Your task to perform on an android device: Go to Google maps Image 0: 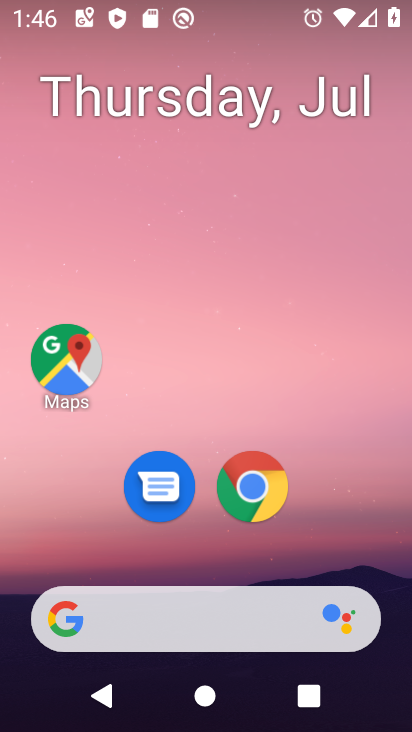
Step 0: click (58, 364)
Your task to perform on an android device: Go to Google maps Image 1: 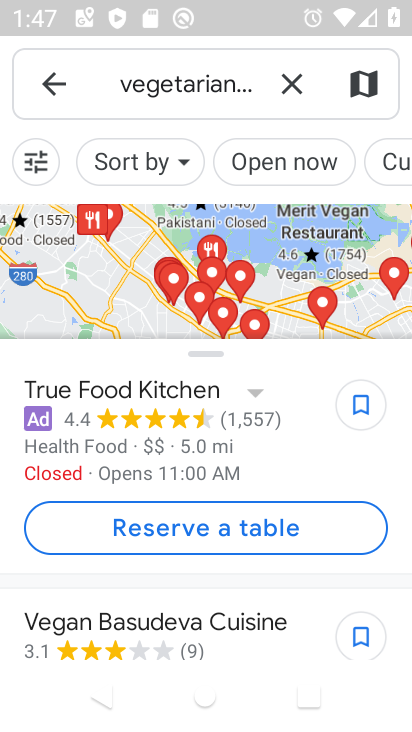
Step 1: task complete